Your task to perform on an android device: Check the news Image 0: 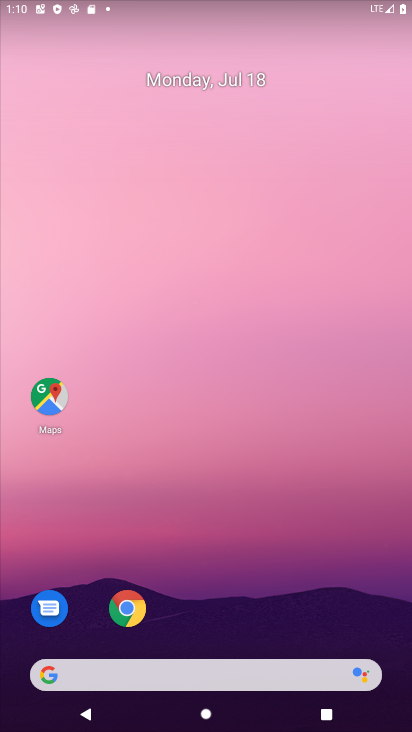
Step 0: drag from (319, 590) to (165, 13)
Your task to perform on an android device: Check the news Image 1: 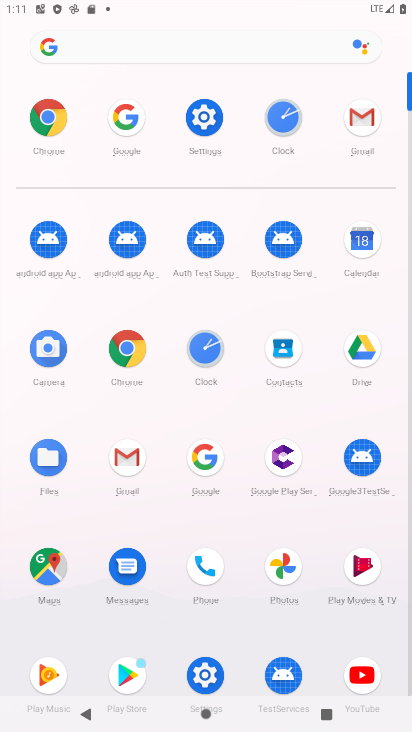
Step 1: click (224, 457)
Your task to perform on an android device: Check the news Image 2: 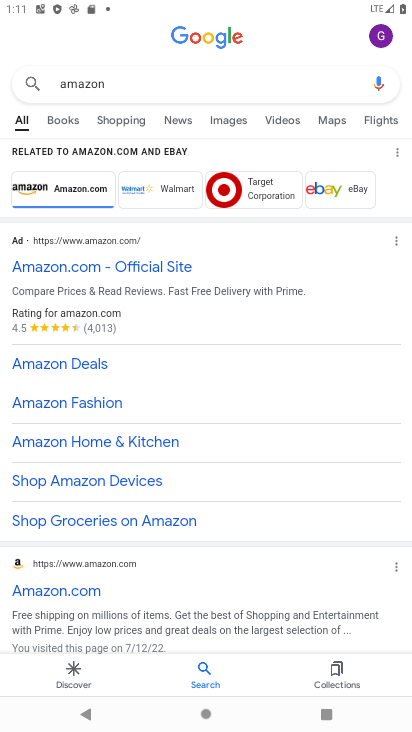
Step 2: press back button
Your task to perform on an android device: Check the news Image 3: 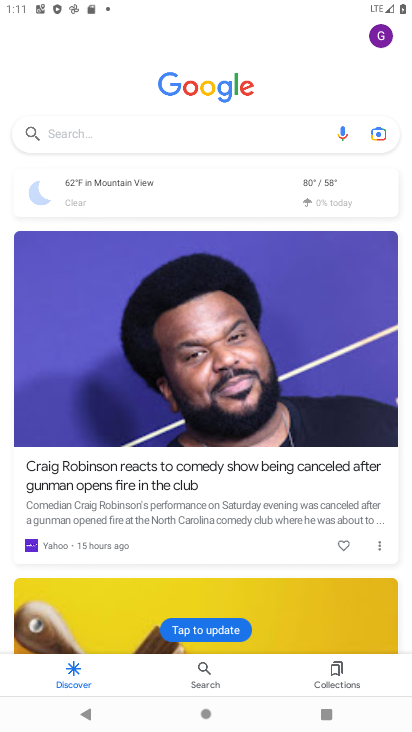
Step 3: click (86, 130)
Your task to perform on an android device: Check the news Image 4: 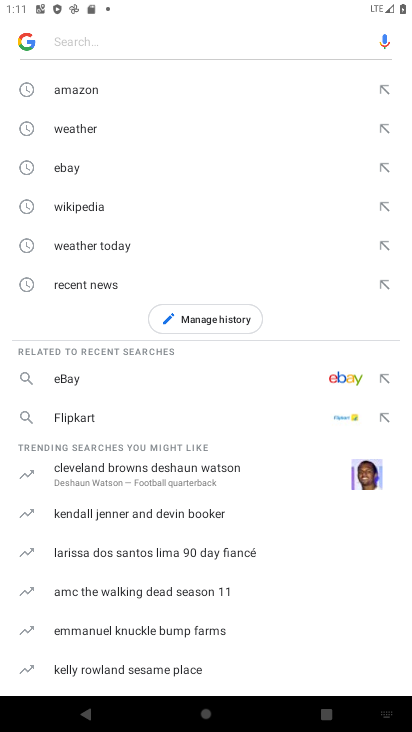
Step 4: type "news"
Your task to perform on an android device: Check the news Image 5: 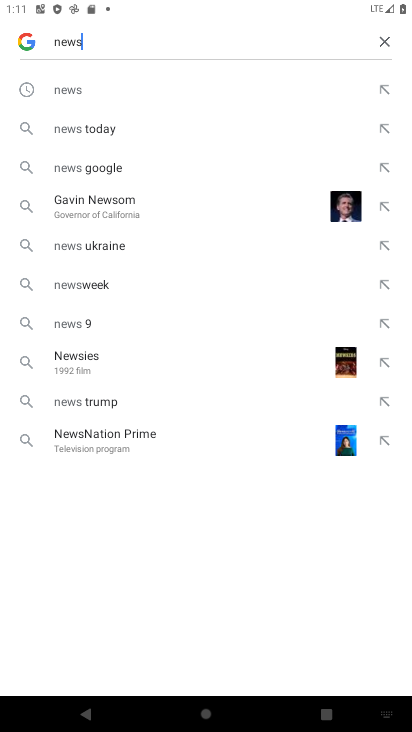
Step 5: click (76, 90)
Your task to perform on an android device: Check the news Image 6: 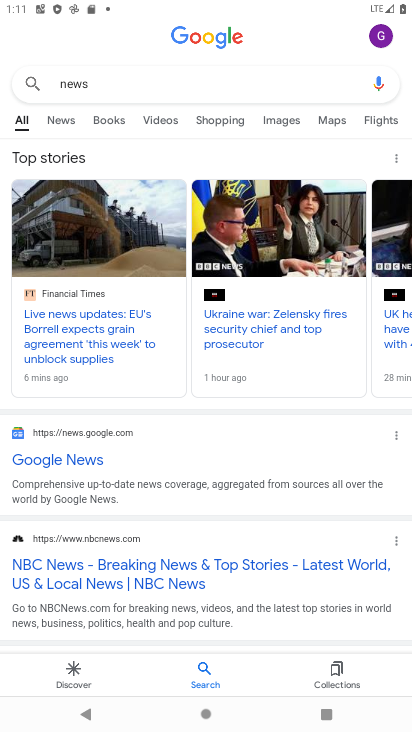
Step 6: task complete